Your task to perform on an android device: Go to sound settings Image 0: 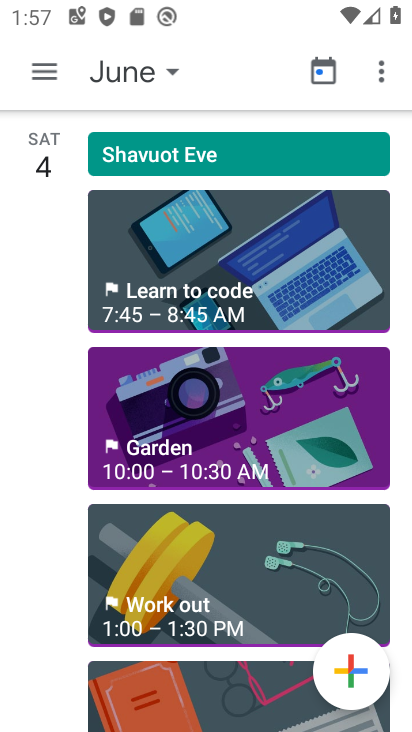
Step 0: press home button
Your task to perform on an android device: Go to sound settings Image 1: 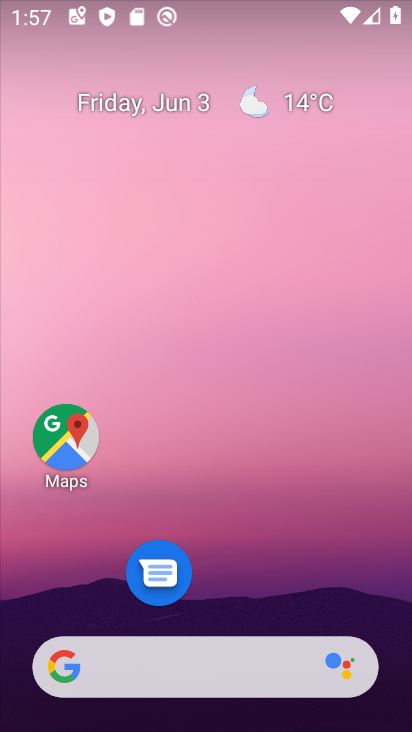
Step 1: drag from (269, 651) to (331, 38)
Your task to perform on an android device: Go to sound settings Image 2: 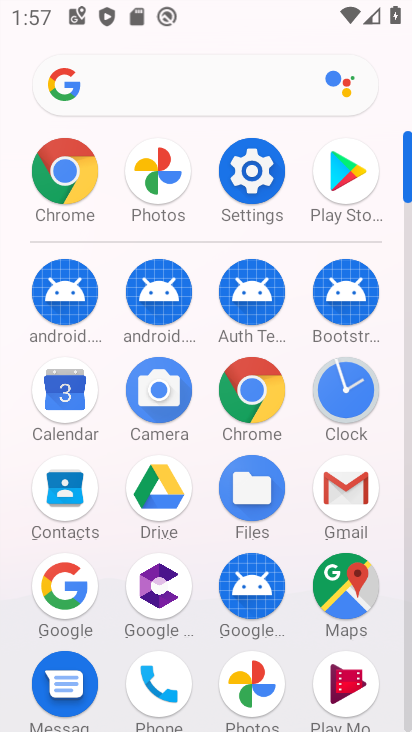
Step 2: click (260, 166)
Your task to perform on an android device: Go to sound settings Image 3: 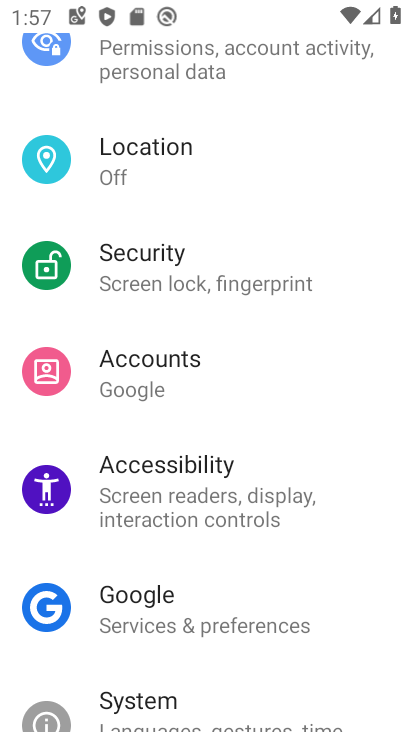
Step 3: drag from (199, 272) to (205, 686)
Your task to perform on an android device: Go to sound settings Image 4: 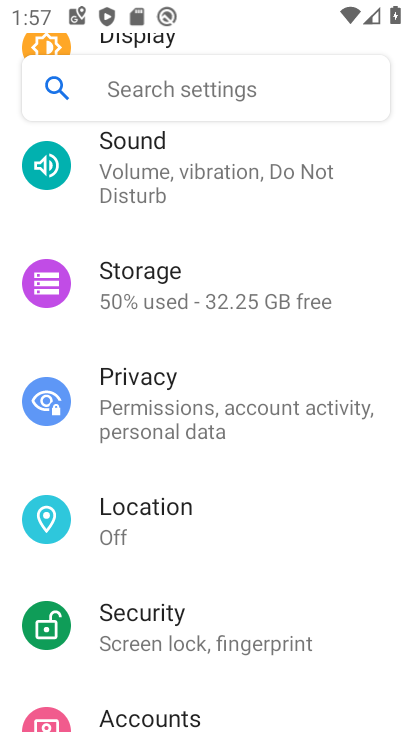
Step 4: click (185, 187)
Your task to perform on an android device: Go to sound settings Image 5: 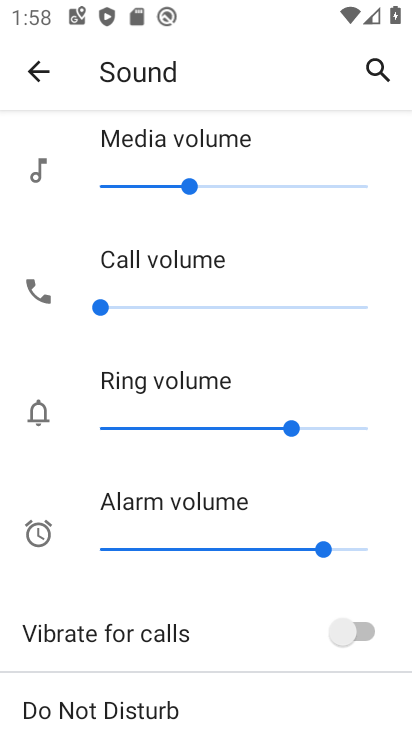
Step 5: task complete